Your task to perform on an android device: remove spam from my inbox in the gmail app Image 0: 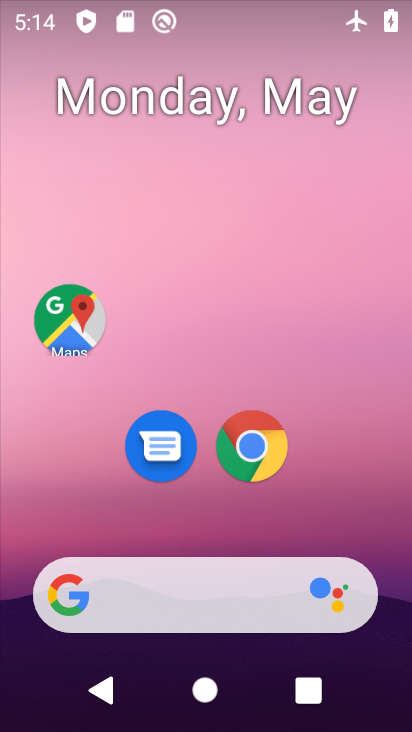
Step 0: drag from (323, 512) to (253, 110)
Your task to perform on an android device: remove spam from my inbox in the gmail app Image 1: 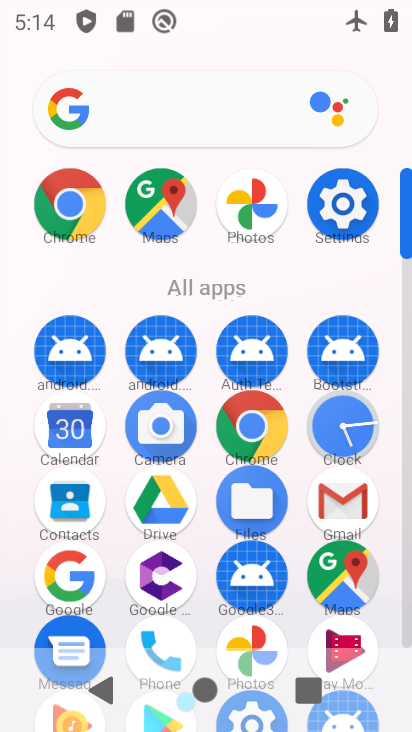
Step 1: click (326, 504)
Your task to perform on an android device: remove spam from my inbox in the gmail app Image 2: 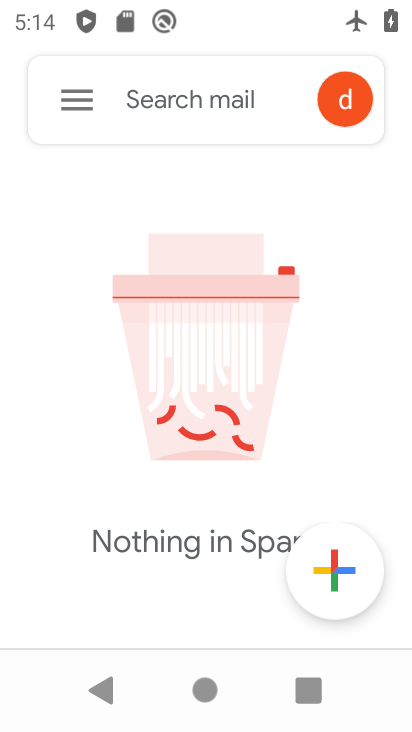
Step 2: click (72, 87)
Your task to perform on an android device: remove spam from my inbox in the gmail app Image 3: 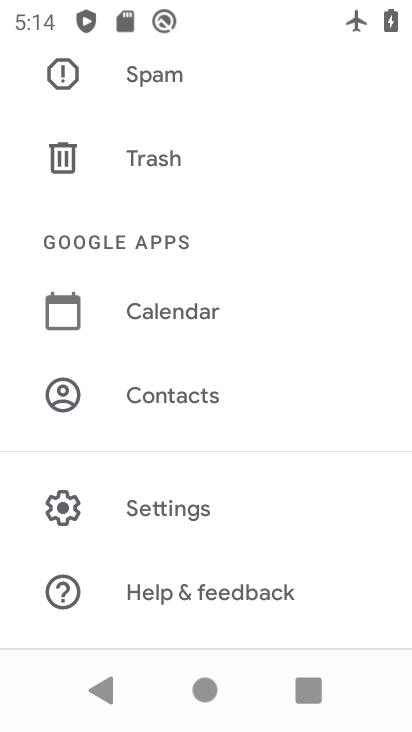
Step 3: click (137, 75)
Your task to perform on an android device: remove spam from my inbox in the gmail app Image 4: 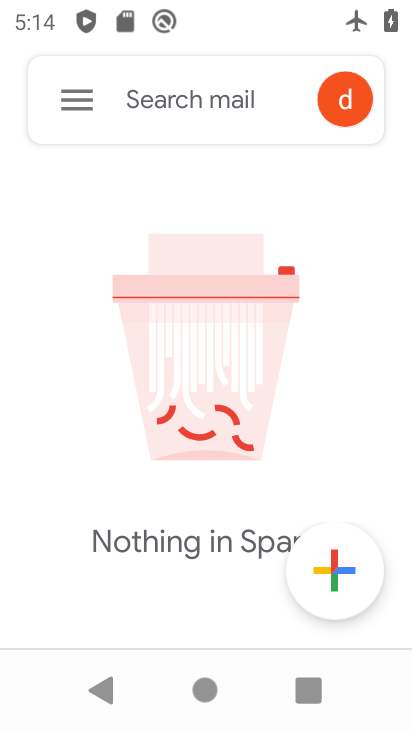
Step 4: task complete